Your task to perform on an android device: Open calendar and show me the third week of next month Image 0: 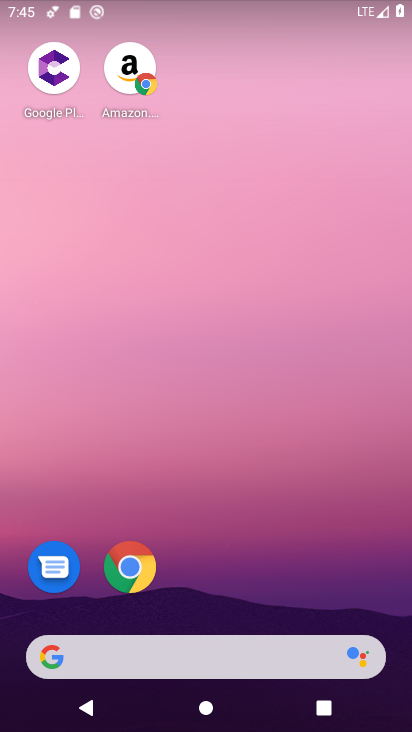
Step 0: drag from (222, 594) to (215, 30)
Your task to perform on an android device: Open calendar and show me the third week of next month Image 1: 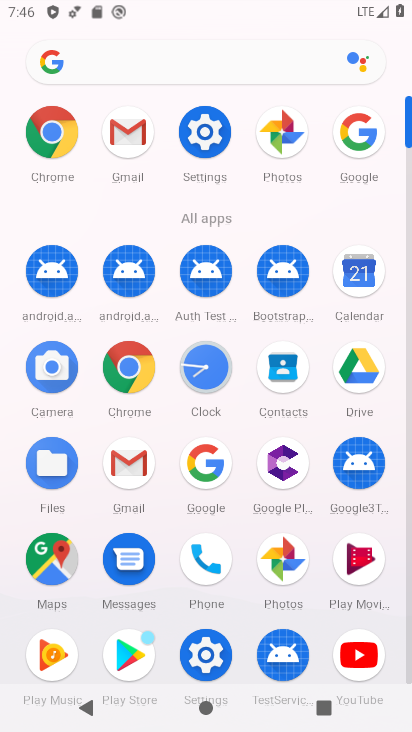
Step 1: click (358, 273)
Your task to perform on an android device: Open calendar and show me the third week of next month Image 2: 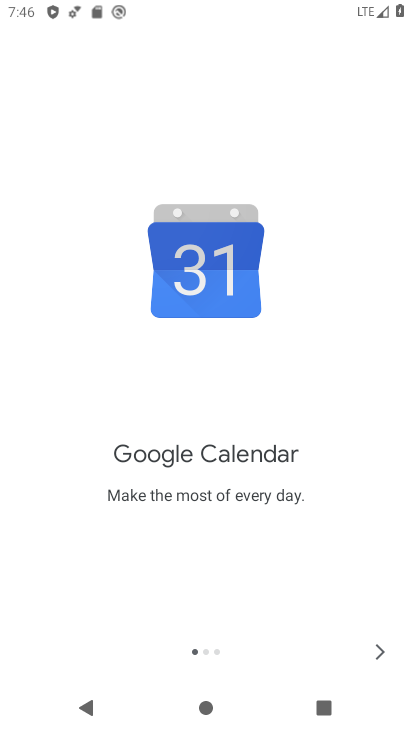
Step 2: click (381, 654)
Your task to perform on an android device: Open calendar and show me the third week of next month Image 3: 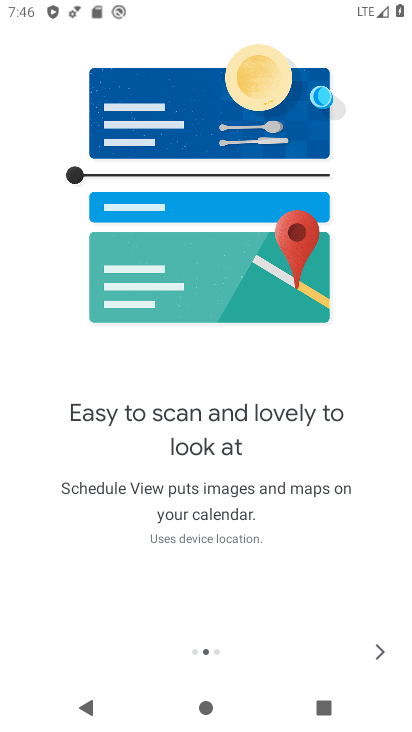
Step 3: click (381, 654)
Your task to perform on an android device: Open calendar and show me the third week of next month Image 4: 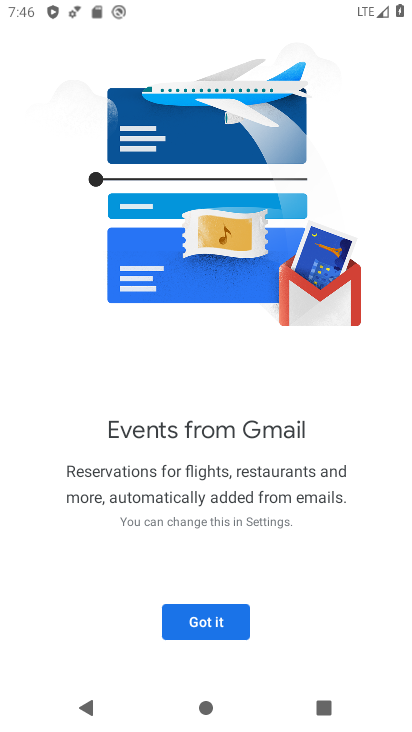
Step 4: click (205, 624)
Your task to perform on an android device: Open calendar and show me the third week of next month Image 5: 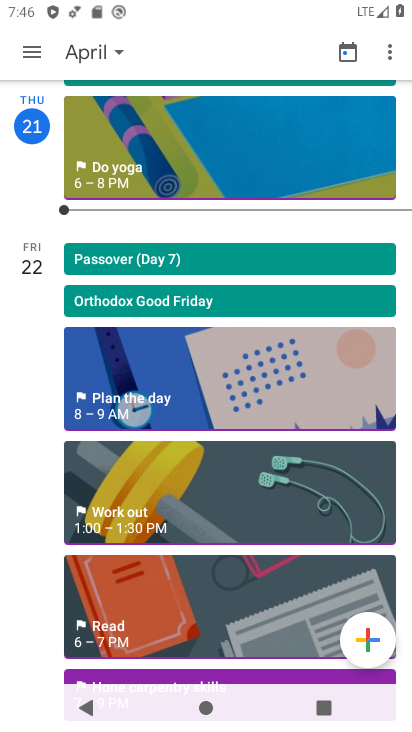
Step 5: click (118, 49)
Your task to perform on an android device: Open calendar and show me the third week of next month Image 6: 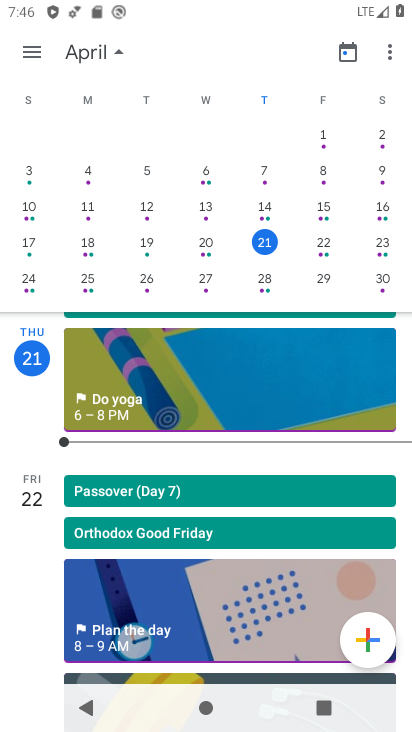
Step 6: drag from (364, 225) to (5, 224)
Your task to perform on an android device: Open calendar and show me the third week of next month Image 7: 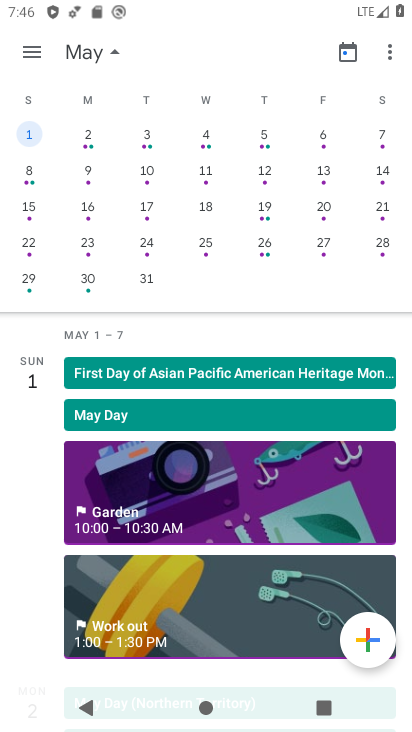
Step 7: click (95, 211)
Your task to perform on an android device: Open calendar and show me the third week of next month Image 8: 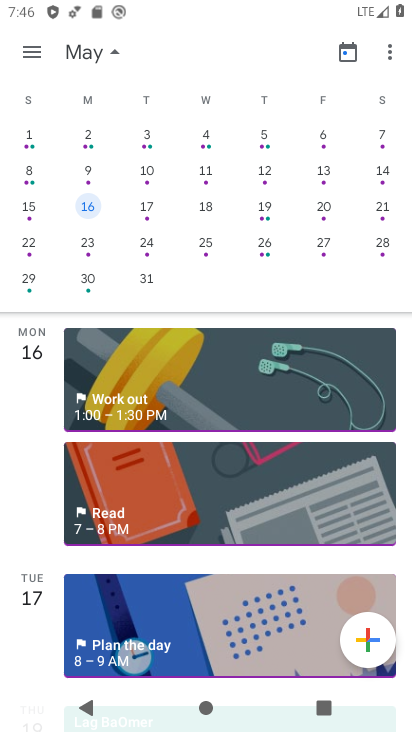
Step 8: click (27, 54)
Your task to perform on an android device: Open calendar and show me the third week of next month Image 9: 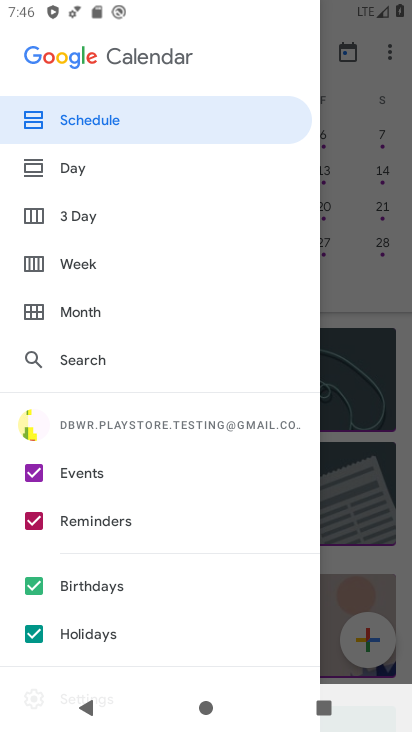
Step 9: click (96, 259)
Your task to perform on an android device: Open calendar and show me the third week of next month Image 10: 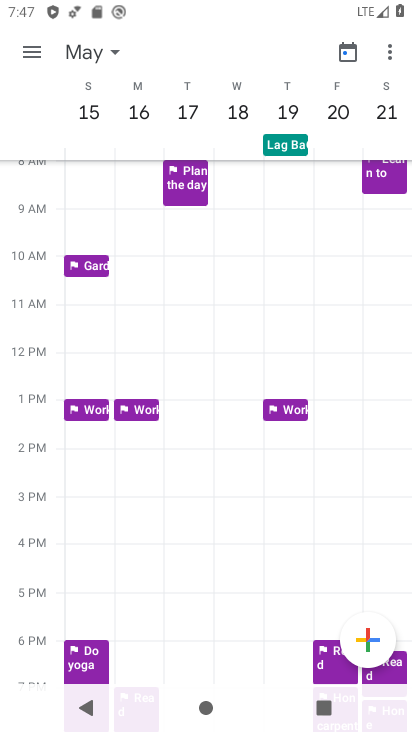
Step 10: task complete